Your task to perform on an android device: toggle airplane mode Image 0: 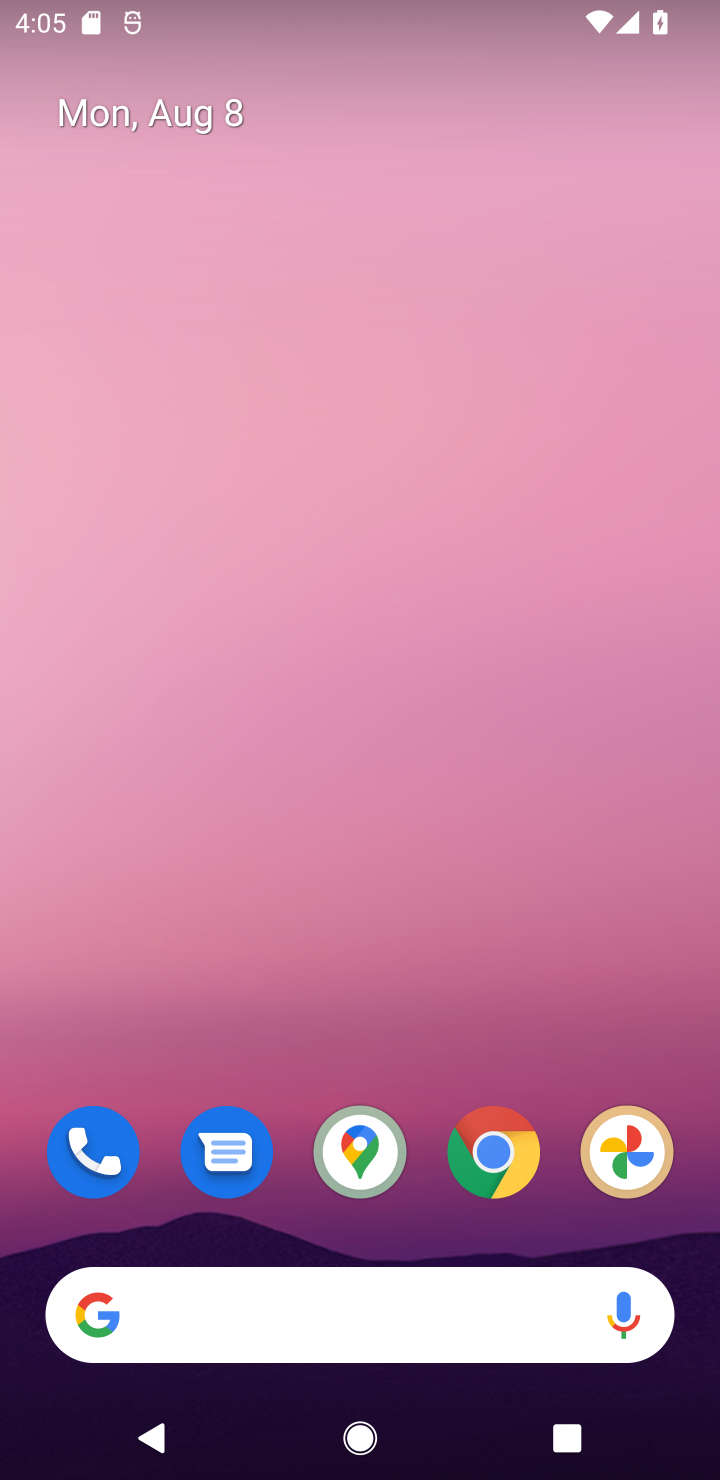
Step 0: drag from (643, 23) to (614, 1126)
Your task to perform on an android device: toggle airplane mode Image 1: 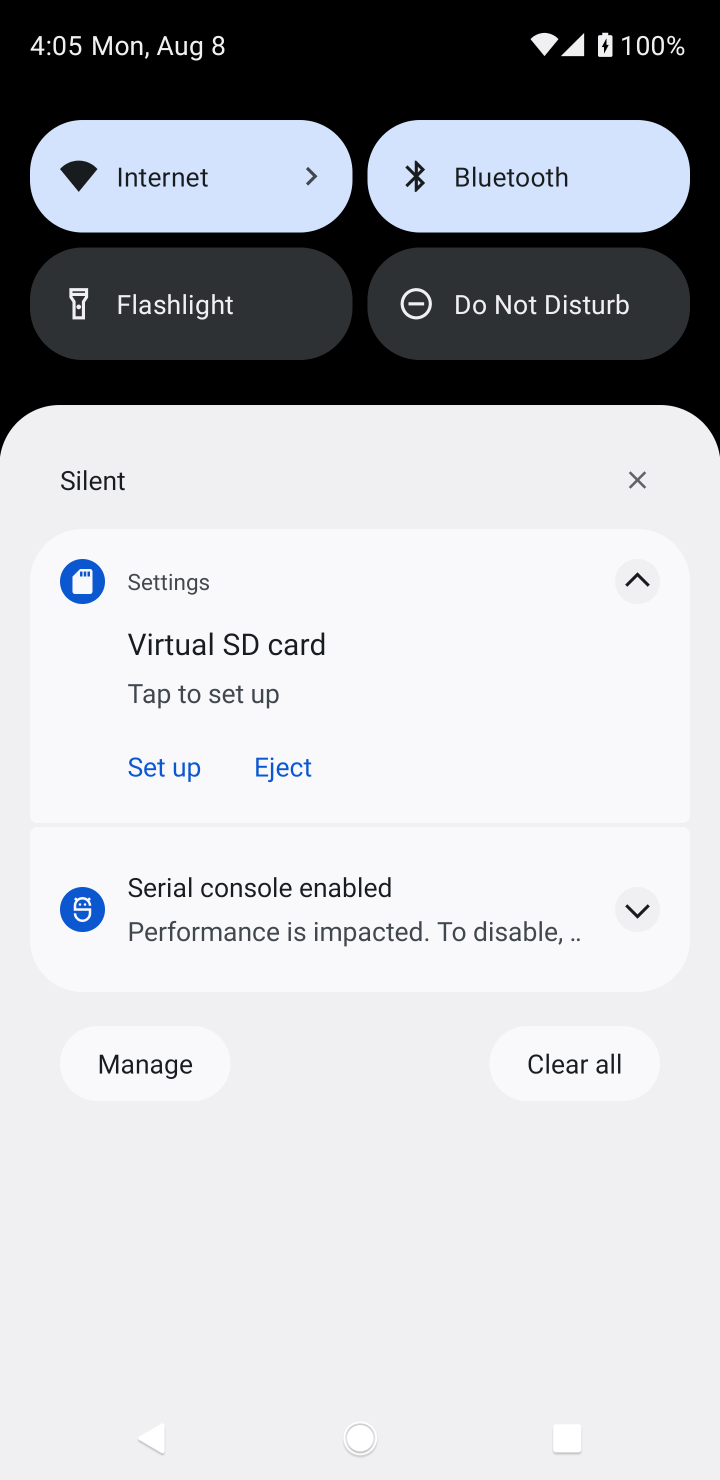
Step 1: drag from (341, 381) to (431, 1268)
Your task to perform on an android device: toggle airplane mode Image 2: 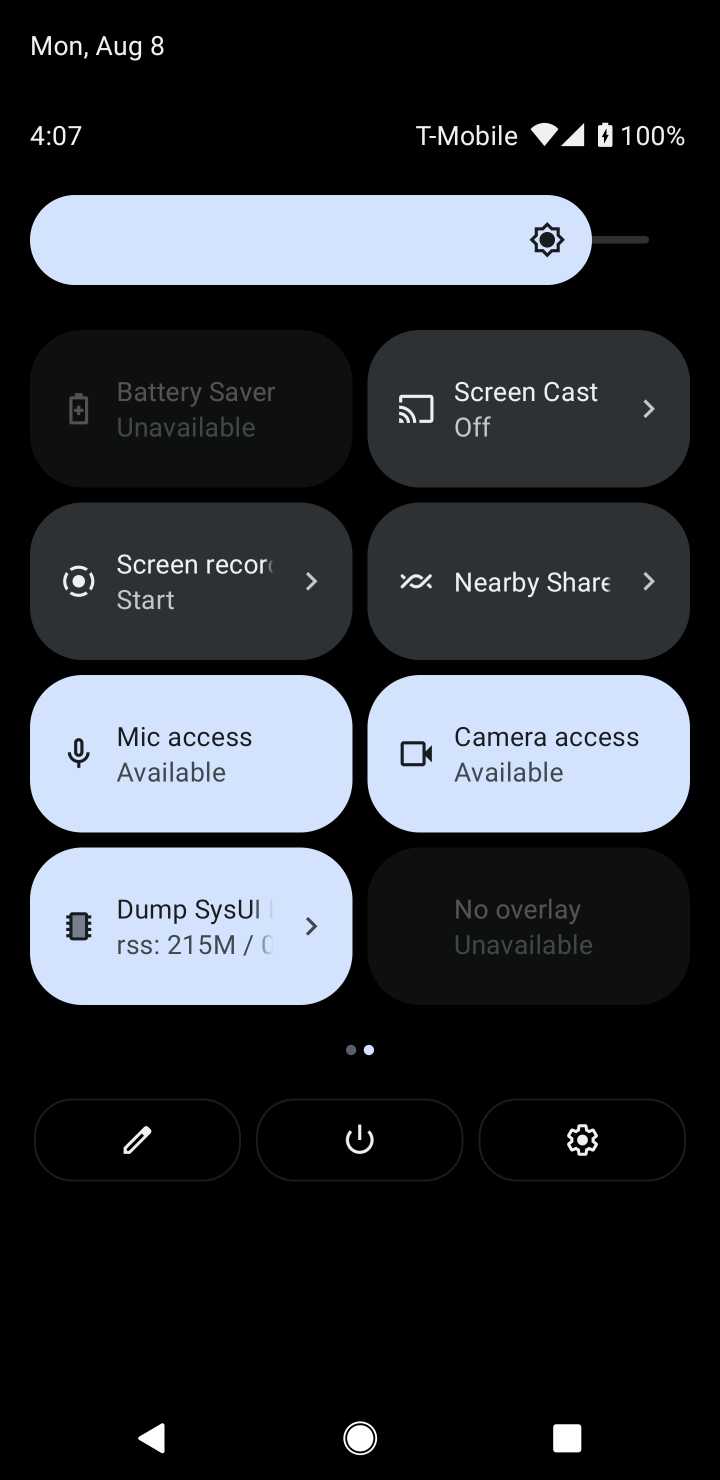
Step 2: drag from (642, 551) to (0, 565)
Your task to perform on an android device: toggle airplane mode Image 3: 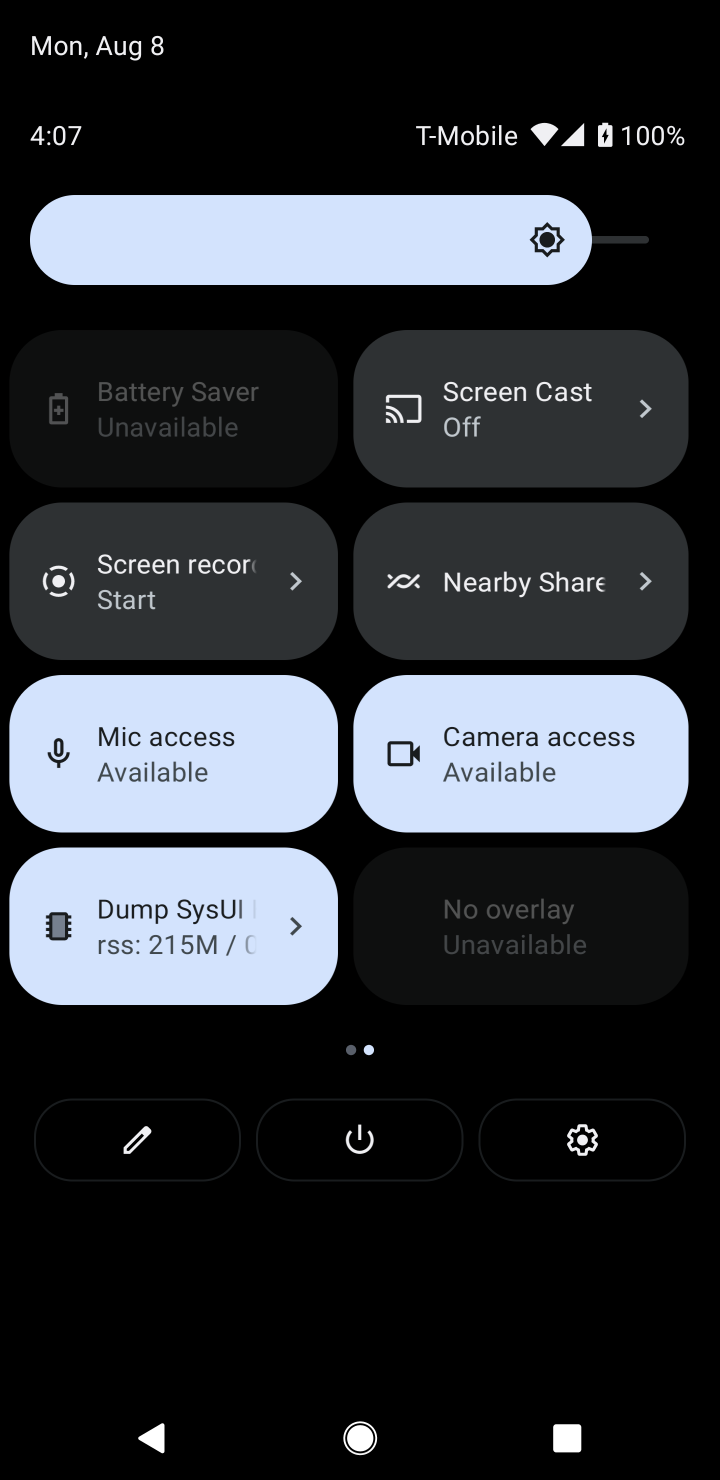
Step 3: drag from (84, 602) to (616, 577)
Your task to perform on an android device: toggle airplane mode Image 4: 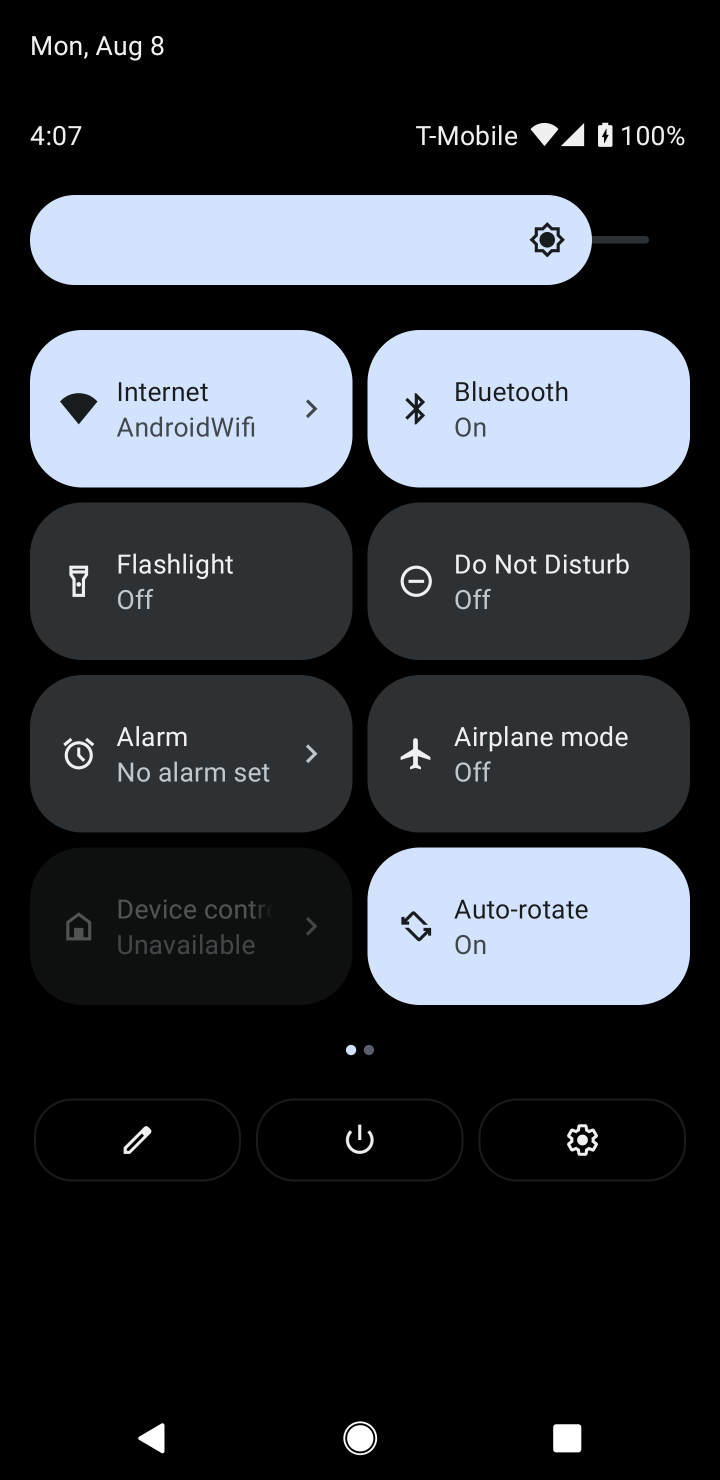
Step 4: click (495, 745)
Your task to perform on an android device: toggle airplane mode Image 5: 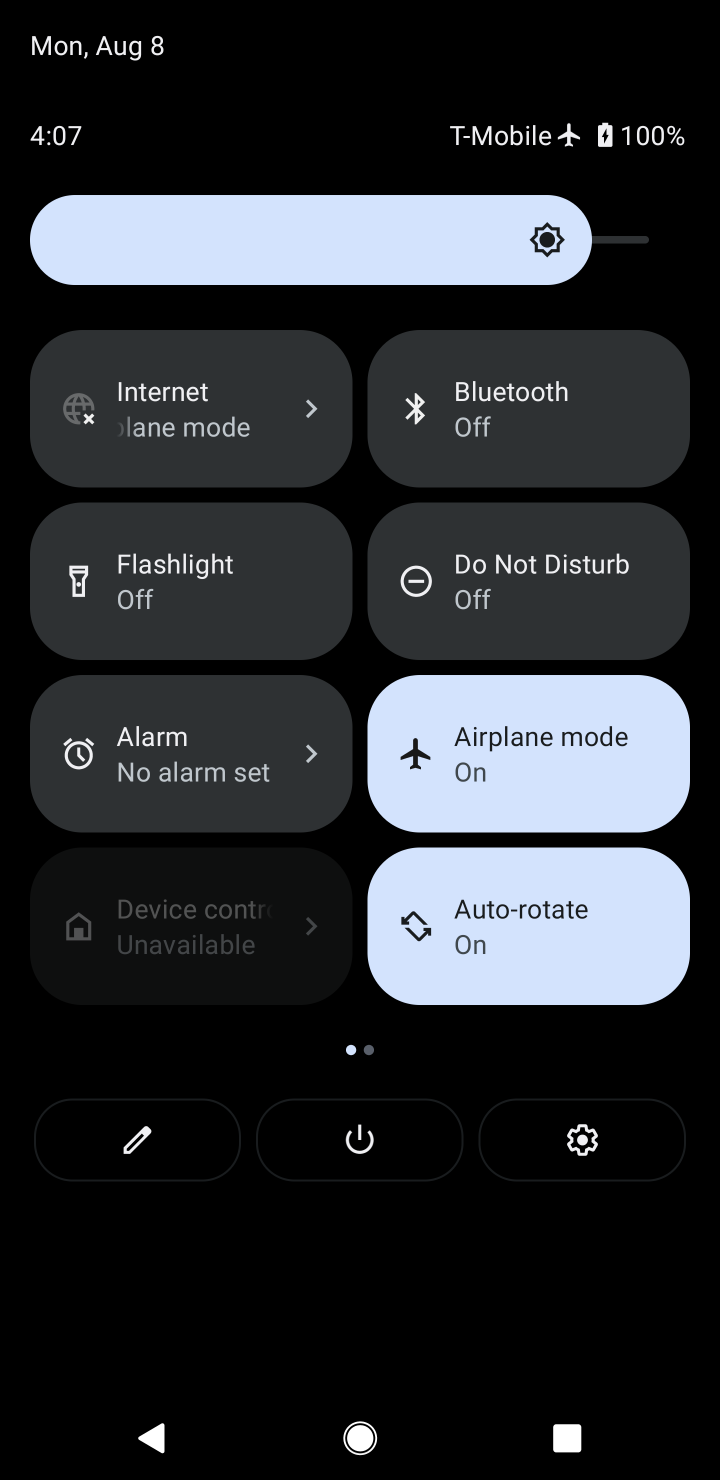
Step 5: task complete